Your task to perform on an android device: toggle wifi Image 0: 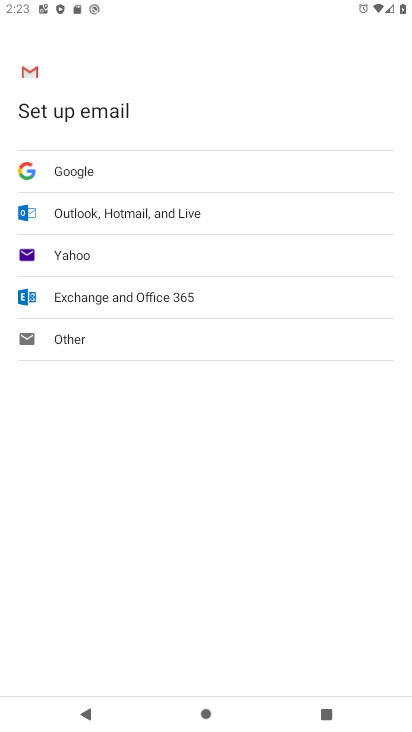
Step 0: press home button
Your task to perform on an android device: toggle wifi Image 1: 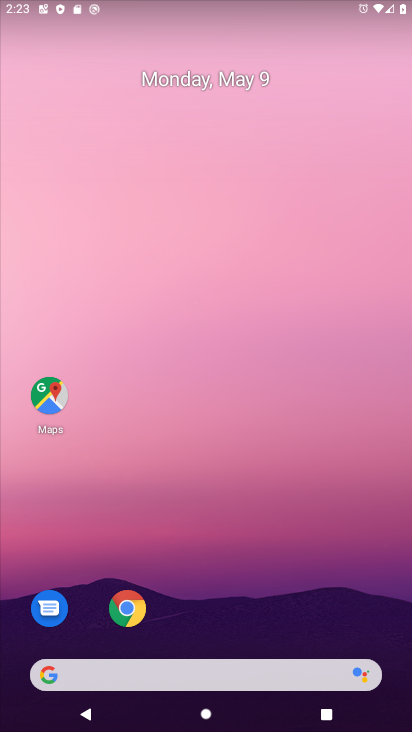
Step 1: drag from (129, 9) to (101, 475)
Your task to perform on an android device: toggle wifi Image 2: 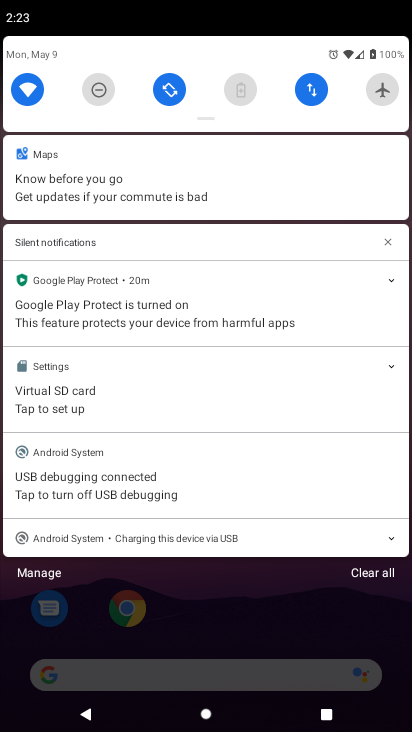
Step 2: click (20, 98)
Your task to perform on an android device: toggle wifi Image 3: 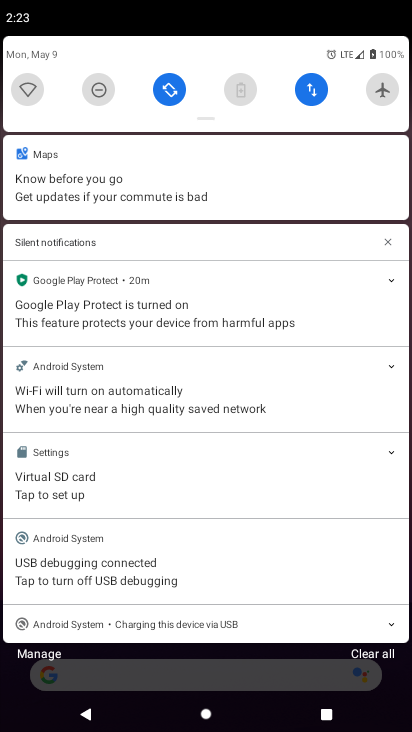
Step 3: click (20, 98)
Your task to perform on an android device: toggle wifi Image 4: 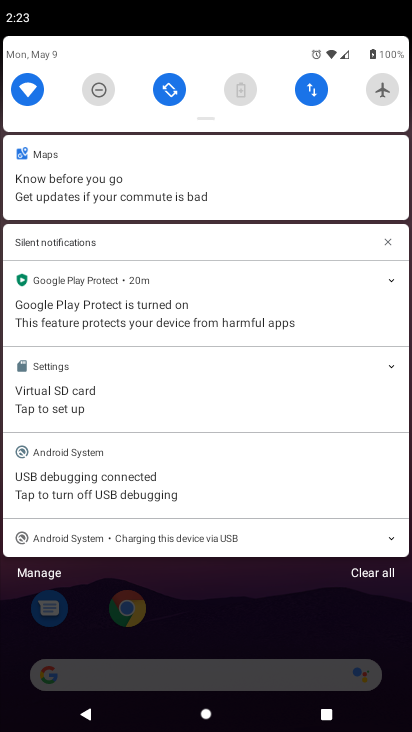
Step 4: task complete